Your task to perform on an android device: toggle translation in the chrome app Image 0: 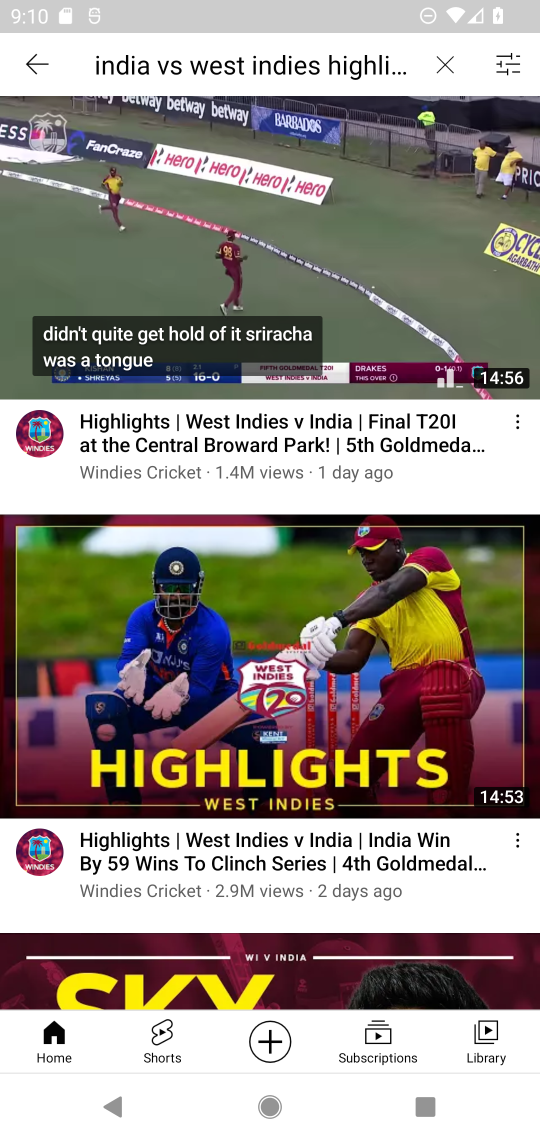
Step 0: press home button
Your task to perform on an android device: toggle translation in the chrome app Image 1: 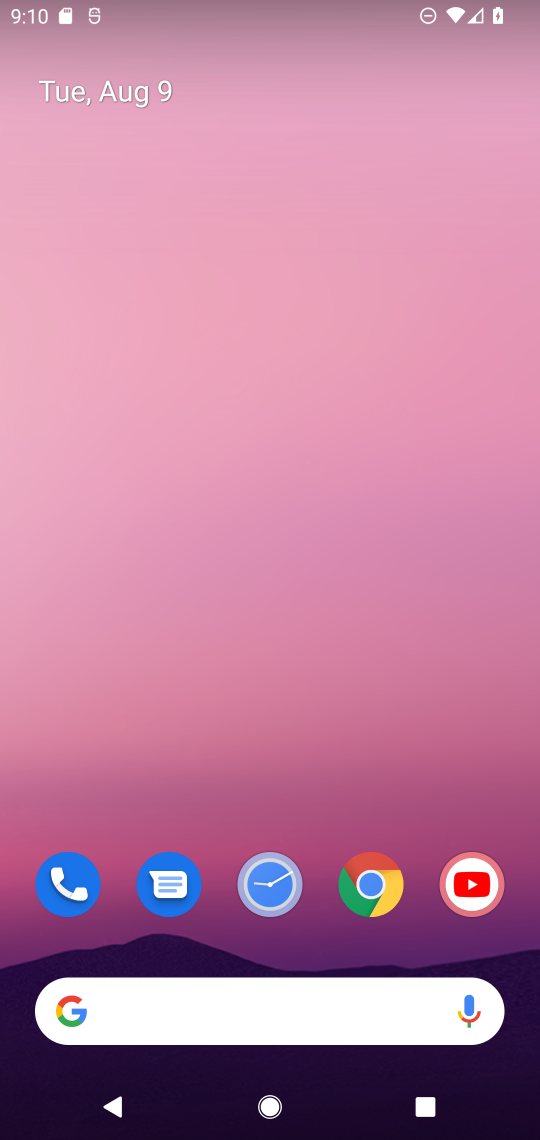
Step 1: drag from (300, 883) to (350, 236)
Your task to perform on an android device: toggle translation in the chrome app Image 2: 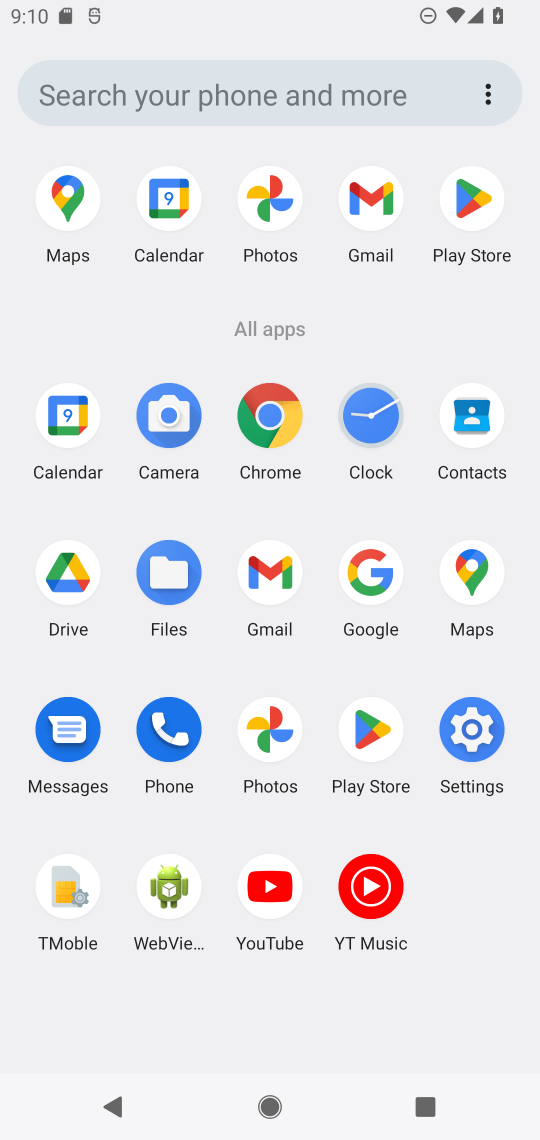
Step 2: click (259, 403)
Your task to perform on an android device: toggle translation in the chrome app Image 3: 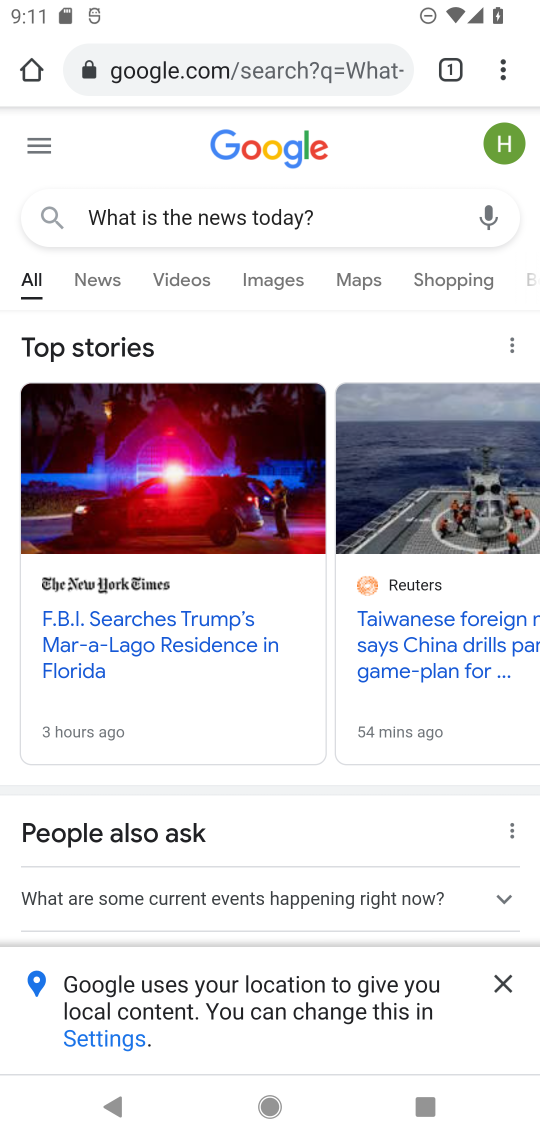
Step 3: click (525, 64)
Your task to perform on an android device: toggle translation in the chrome app Image 4: 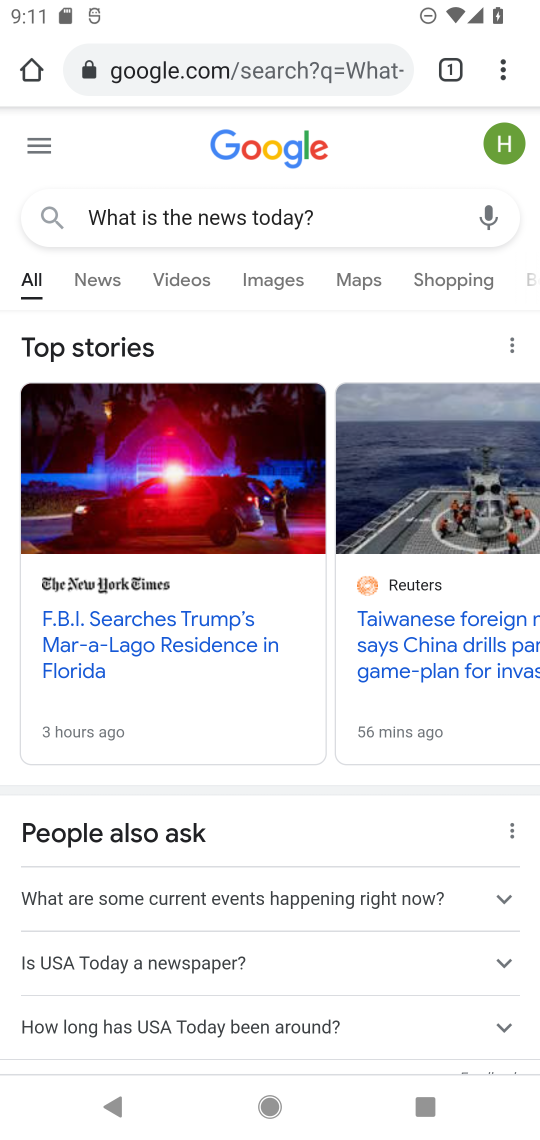
Step 4: click (518, 48)
Your task to perform on an android device: toggle translation in the chrome app Image 5: 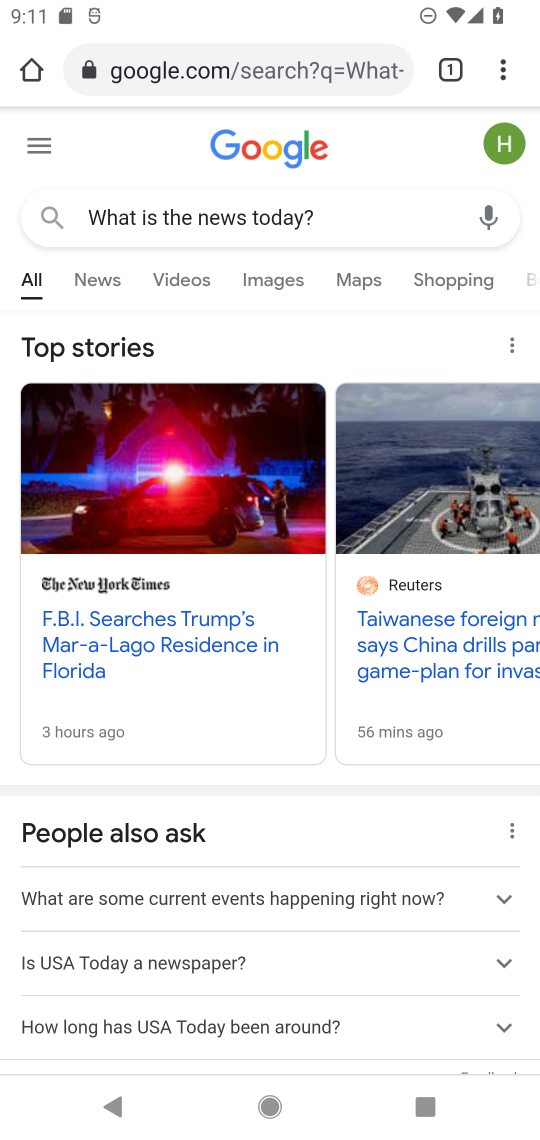
Step 5: click (503, 69)
Your task to perform on an android device: toggle translation in the chrome app Image 6: 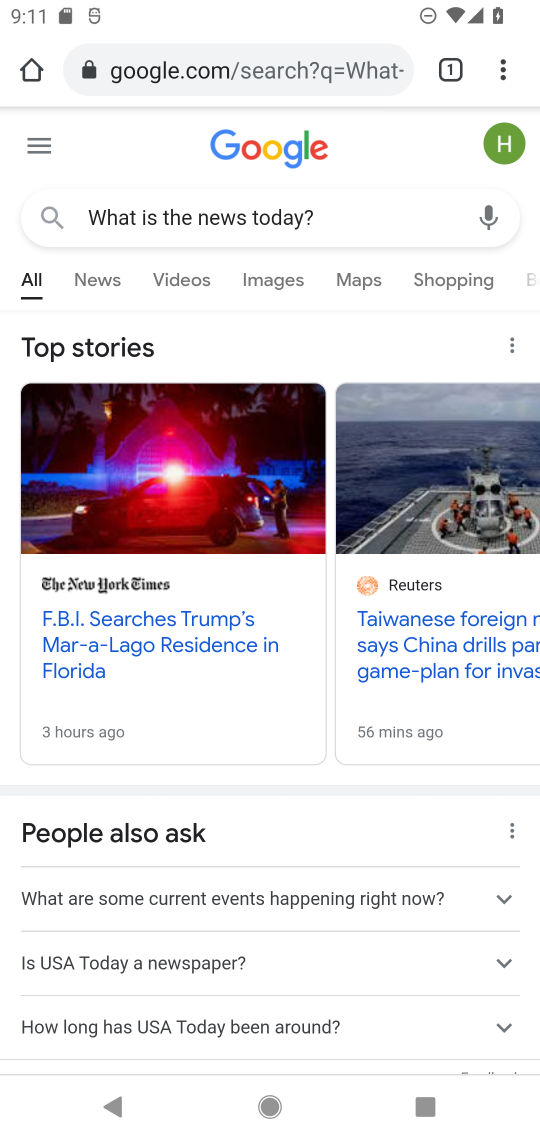
Step 6: click (496, 68)
Your task to perform on an android device: toggle translation in the chrome app Image 7: 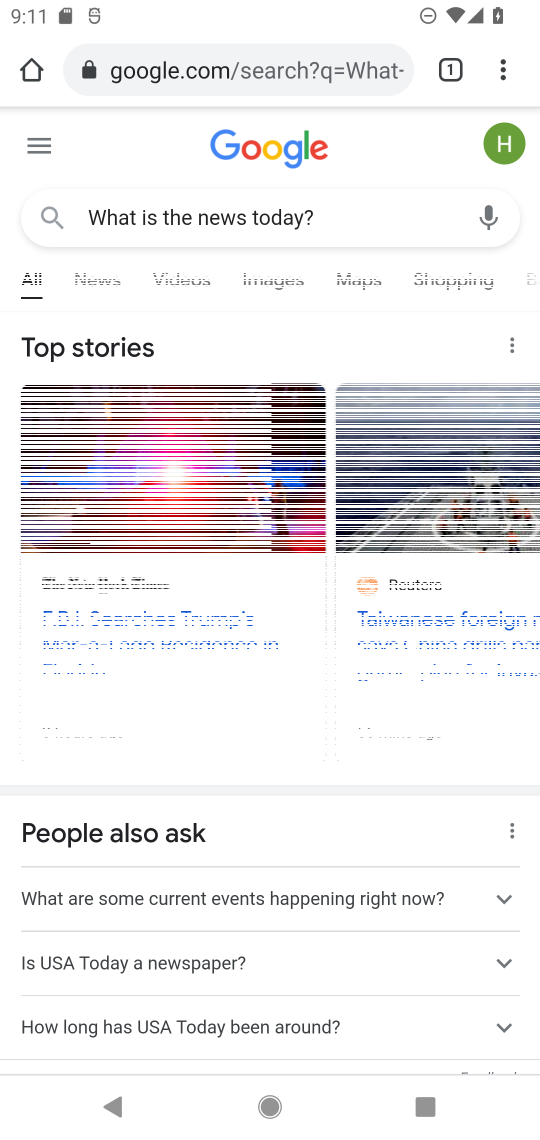
Step 7: click (499, 61)
Your task to perform on an android device: toggle translation in the chrome app Image 8: 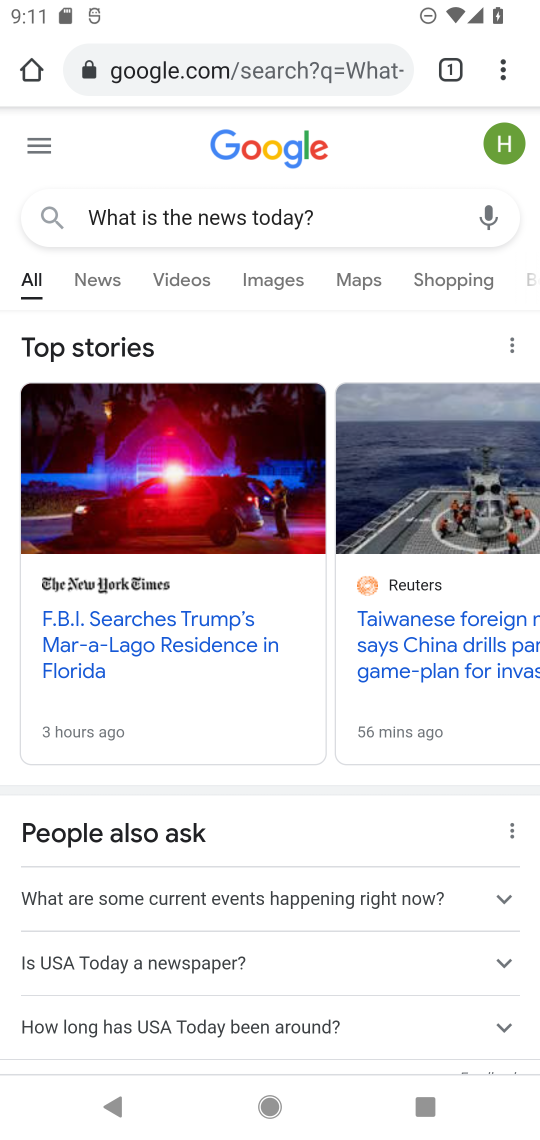
Step 8: click (499, 61)
Your task to perform on an android device: toggle translation in the chrome app Image 9: 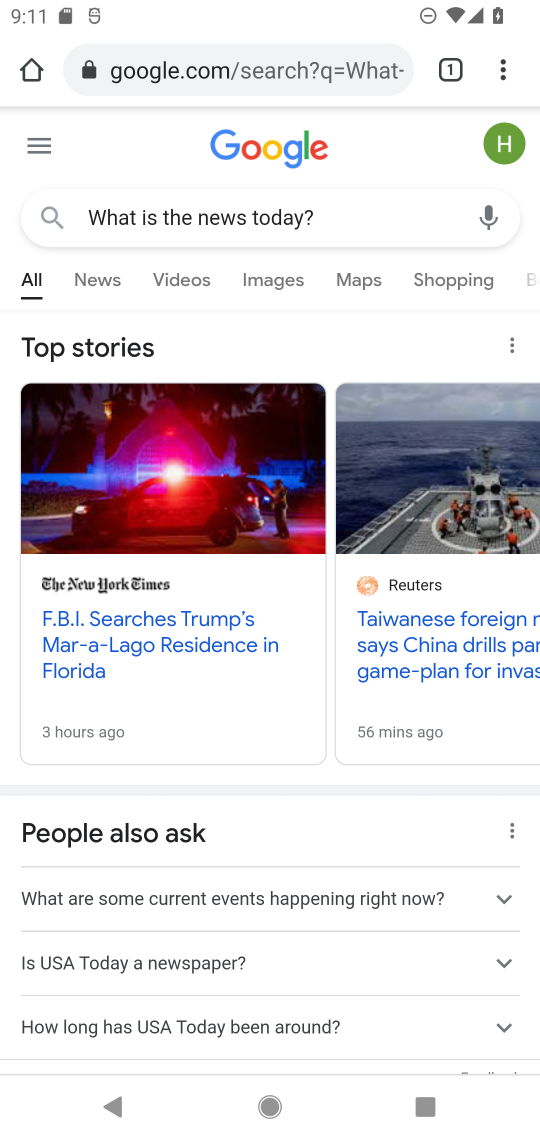
Step 9: click (481, 60)
Your task to perform on an android device: toggle translation in the chrome app Image 10: 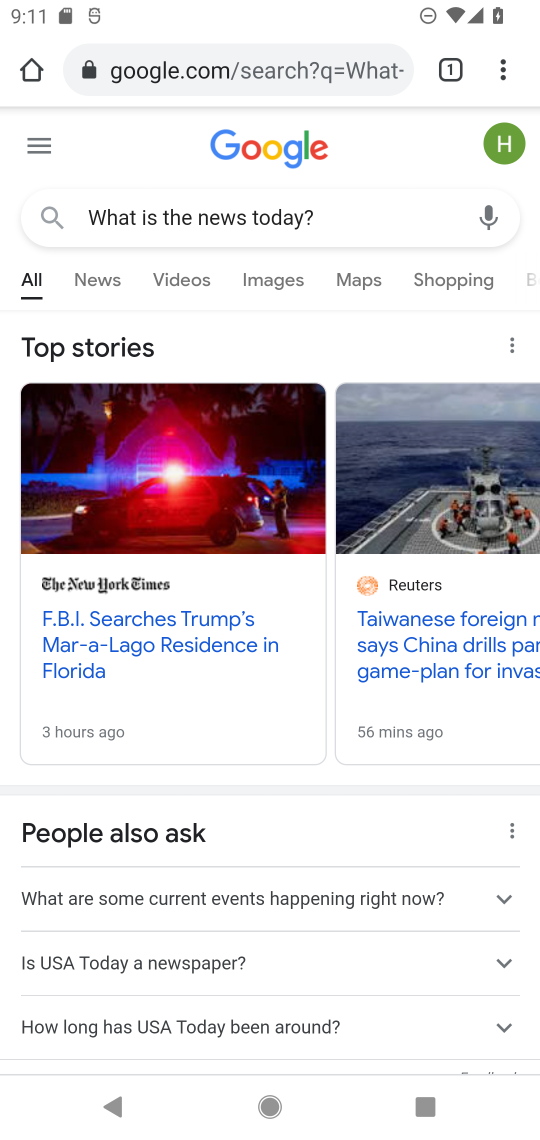
Step 10: click (513, 64)
Your task to perform on an android device: toggle translation in the chrome app Image 11: 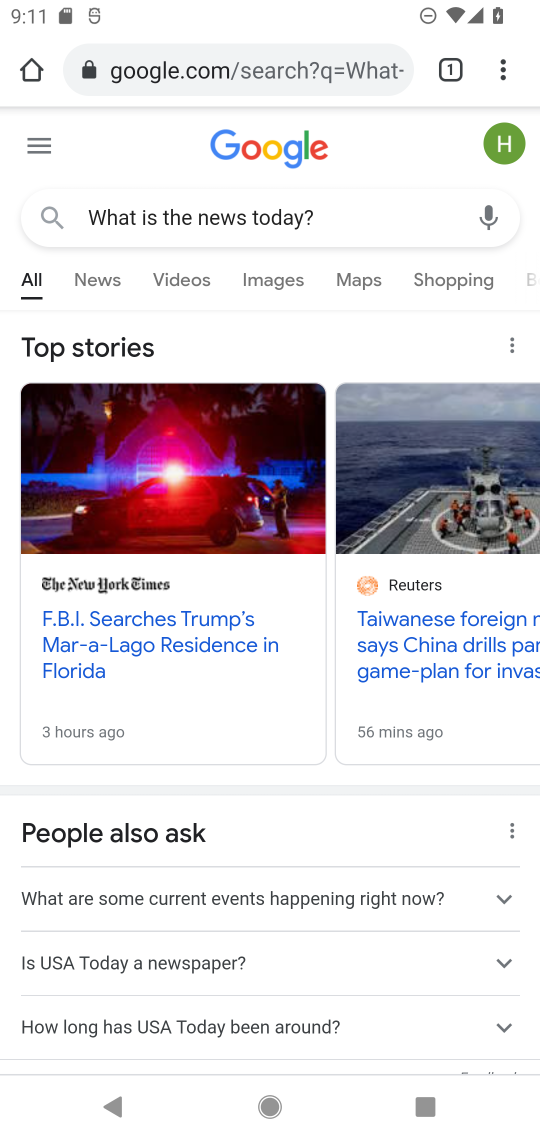
Step 11: click (503, 55)
Your task to perform on an android device: toggle translation in the chrome app Image 12: 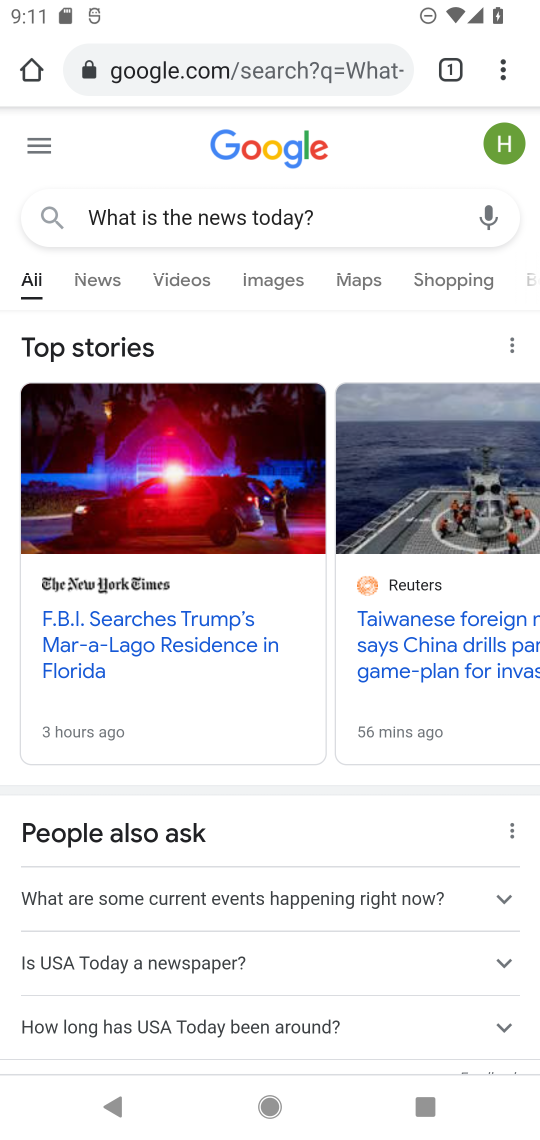
Step 12: click (503, 55)
Your task to perform on an android device: toggle translation in the chrome app Image 13: 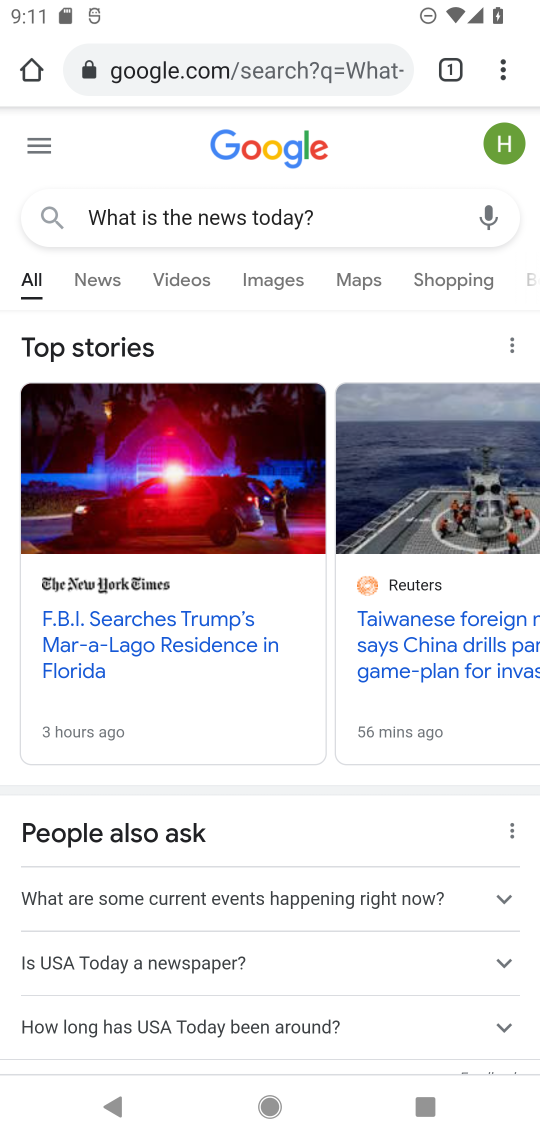
Step 13: click (492, 85)
Your task to perform on an android device: toggle translation in the chrome app Image 14: 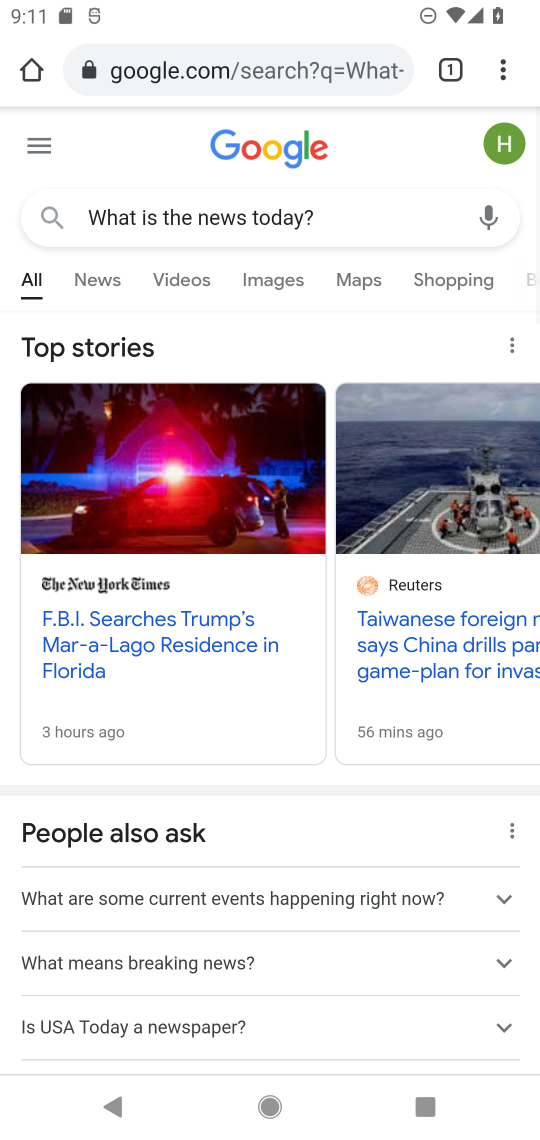
Step 14: click (509, 67)
Your task to perform on an android device: toggle translation in the chrome app Image 15: 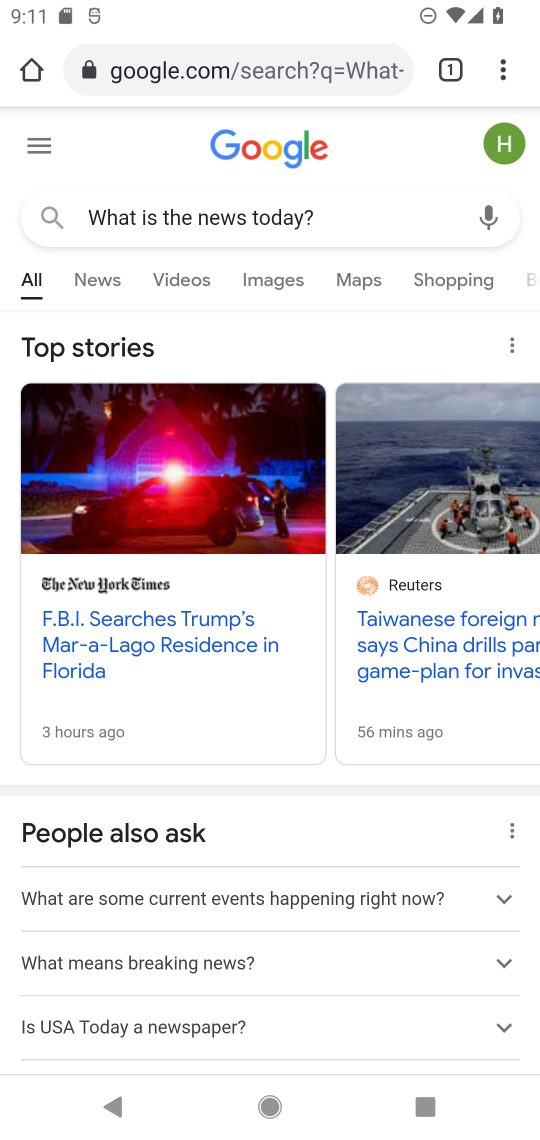
Step 15: click (495, 59)
Your task to perform on an android device: toggle translation in the chrome app Image 16: 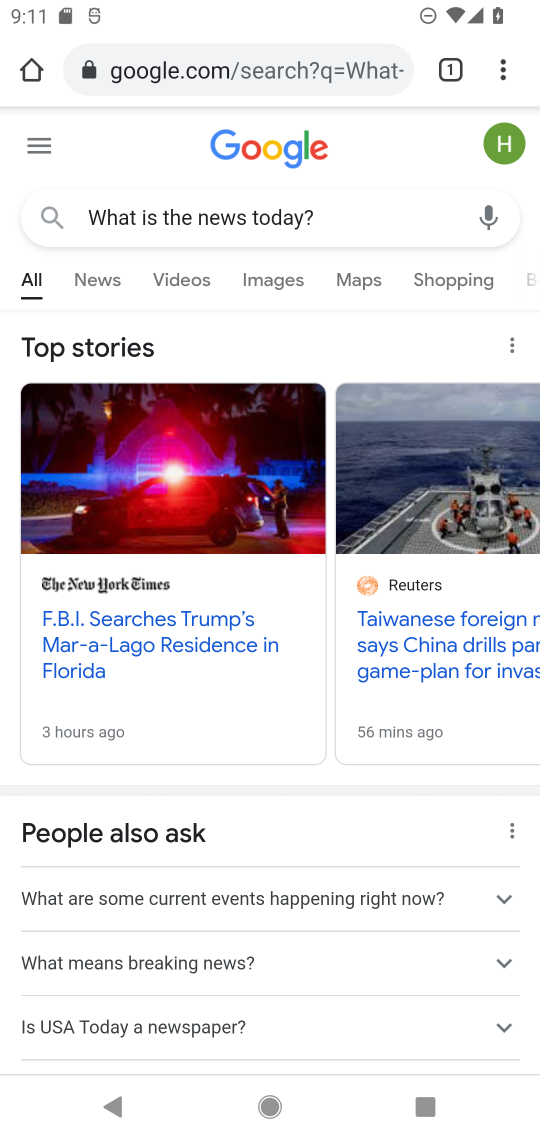
Step 16: click (500, 64)
Your task to perform on an android device: toggle translation in the chrome app Image 17: 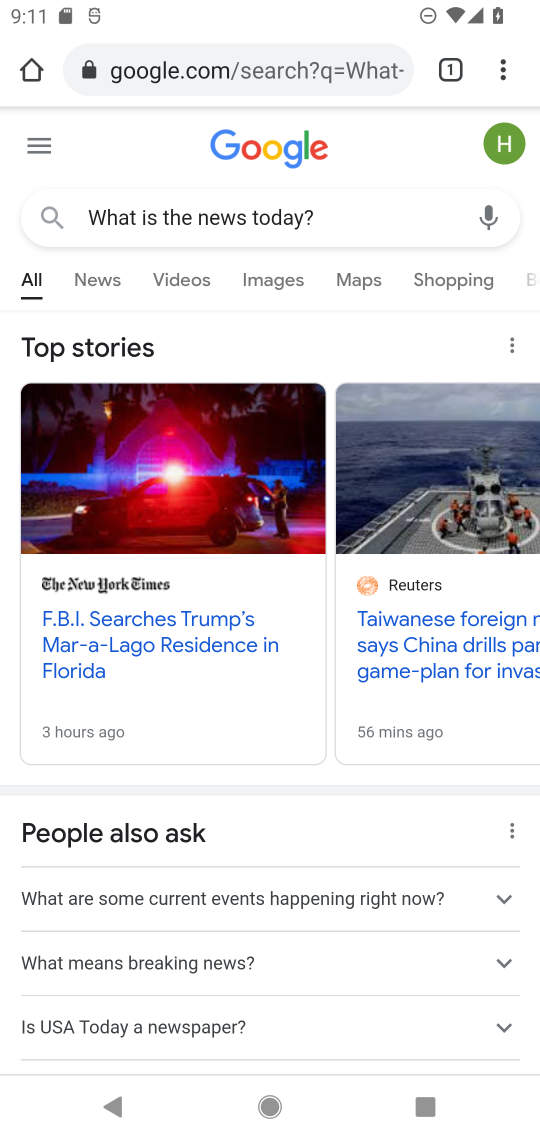
Step 17: task complete